Your task to perform on an android device: Go to battery settings Image 0: 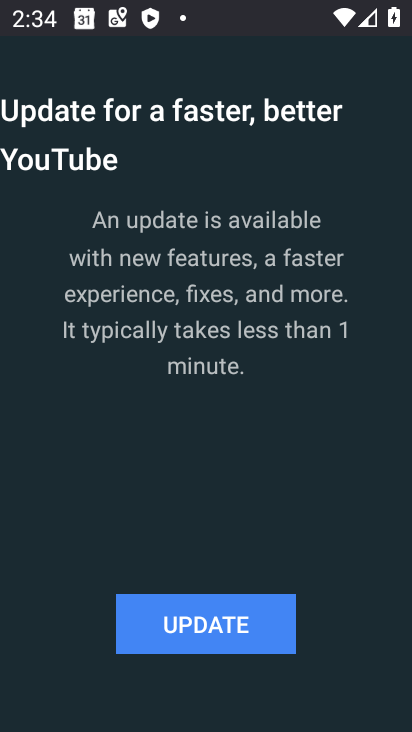
Step 0: press home button
Your task to perform on an android device: Go to battery settings Image 1: 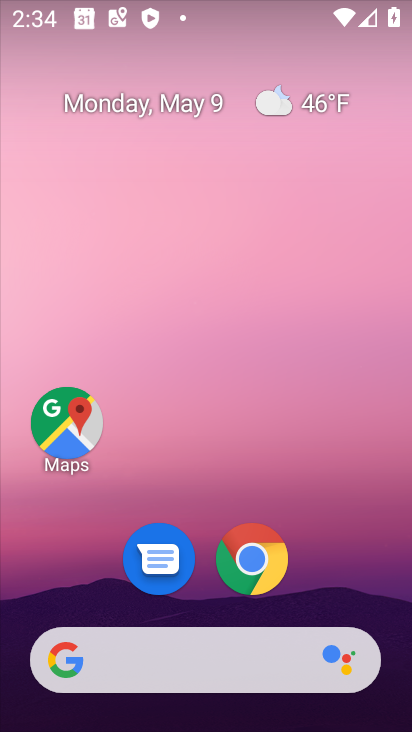
Step 1: drag from (329, 539) to (352, 163)
Your task to perform on an android device: Go to battery settings Image 2: 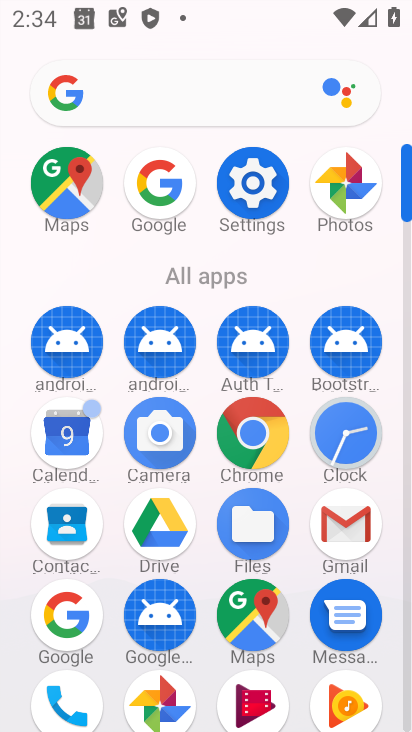
Step 2: click (271, 180)
Your task to perform on an android device: Go to battery settings Image 3: 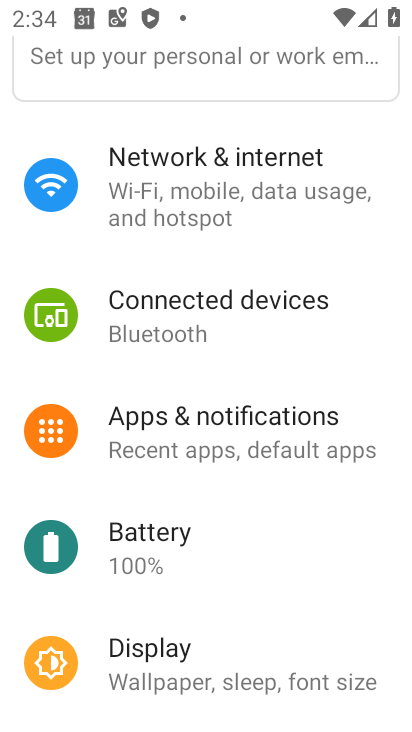
Step 3: click (232, 562)
Your task to perform on an android device: Go to battery settings Image 4: 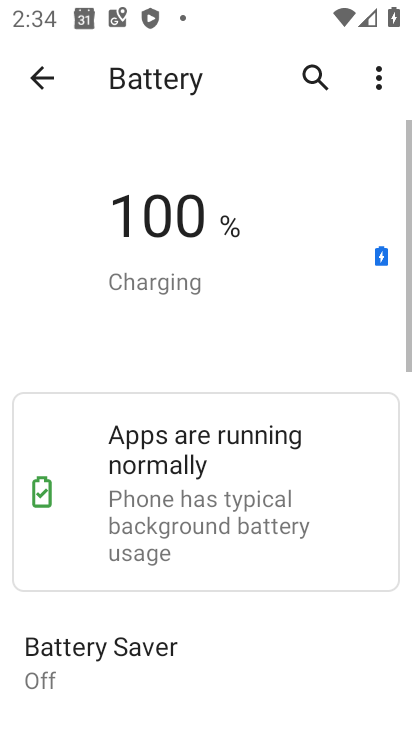
Step 4: task complete